Your task to perform on an android device: Open accessibility settings Image 0: 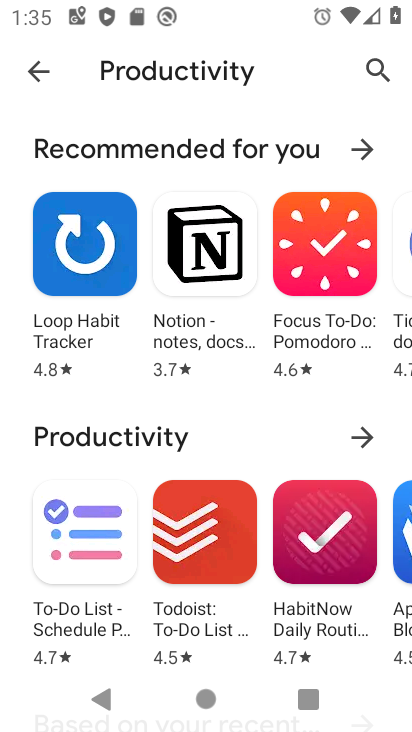
Step 0: press home button
Your task to perform on an android device: Open accessibility settings Image 1: 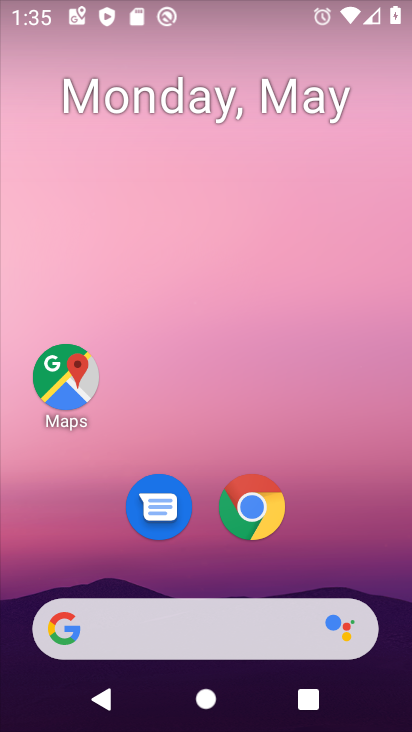
Step 1: drag from (222, 726) to (217, 0)
Your task to perform on an android device: Open accessibility settings Image 2: 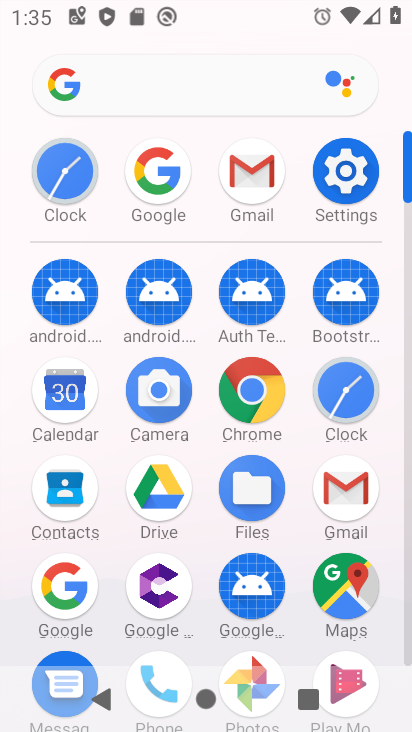
Step 2: click (340, 172)
Your task to perform on an android device: Open accessibility settings Image 3: 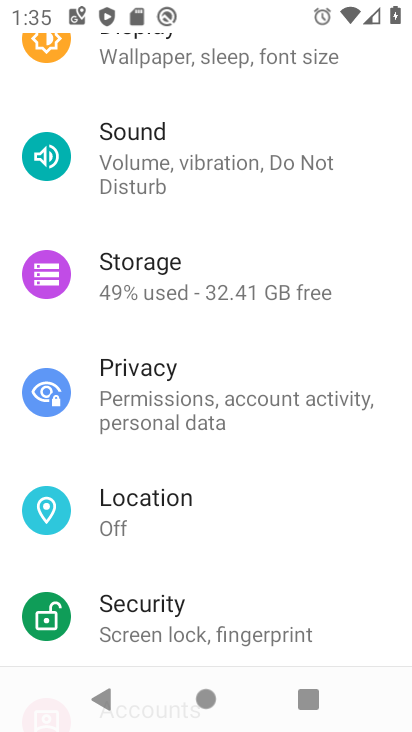
Step 3: drag from (202, 619) to (202, 169)
Your task to perform on an android device: Open accessibility settings Image 4: 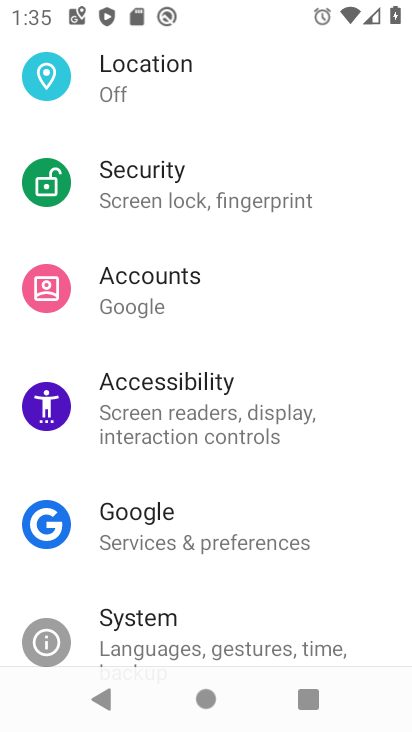
Step 4: click (171, 411)
Your task to perform on an android device: Open accessibility settings Image 5: 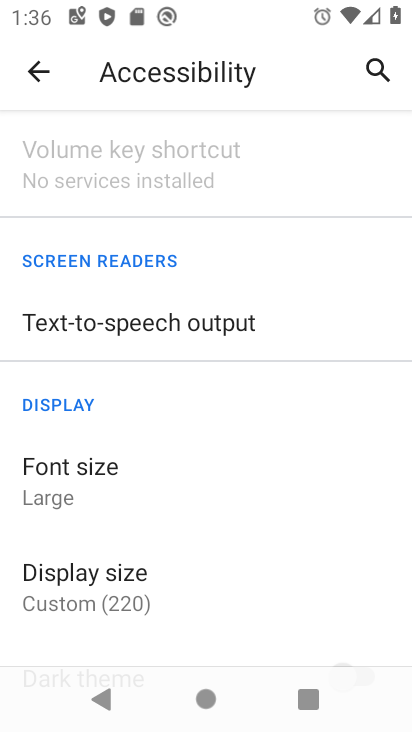
Step 5: task complete